Your task to perform on an android device: uninstall "Google Translate" Image 0: 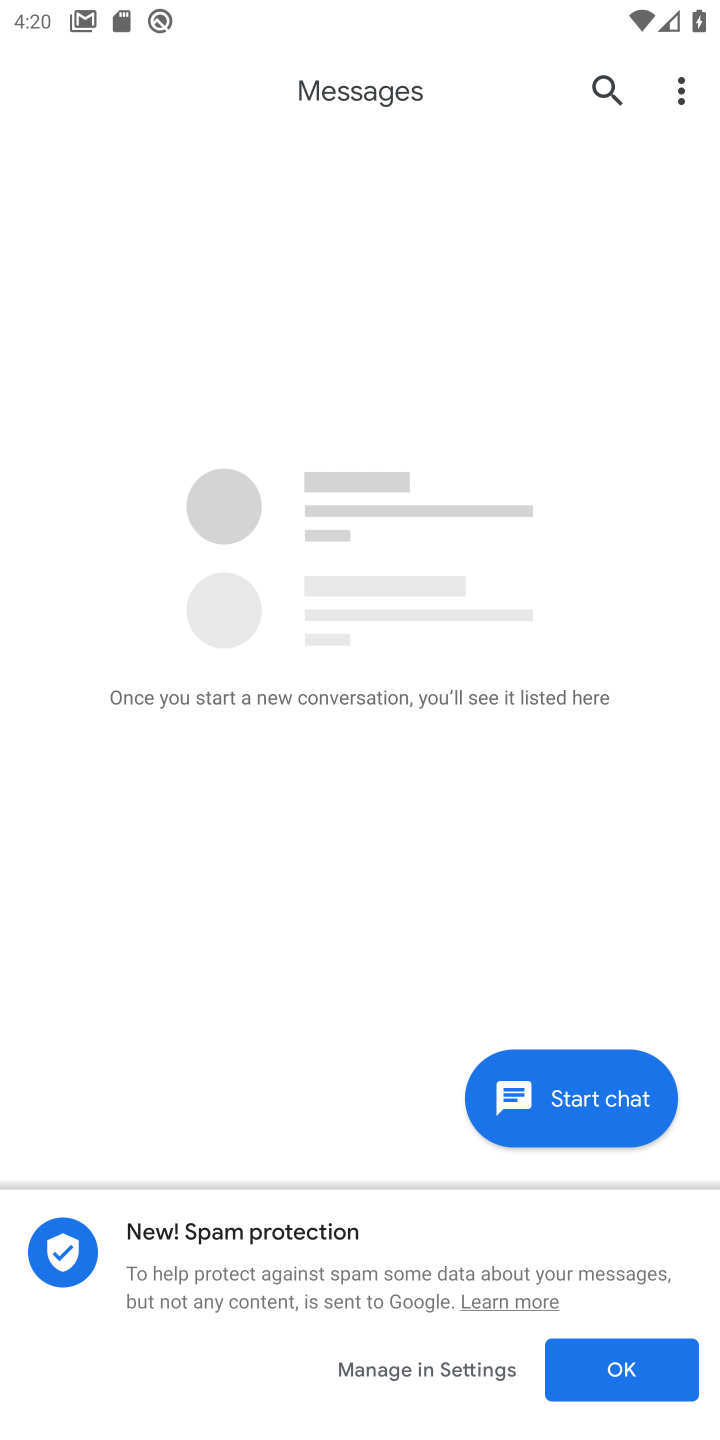
Step 0: press home button
Your task to perform on an android device: uninstall "Google Translate" Image 1: 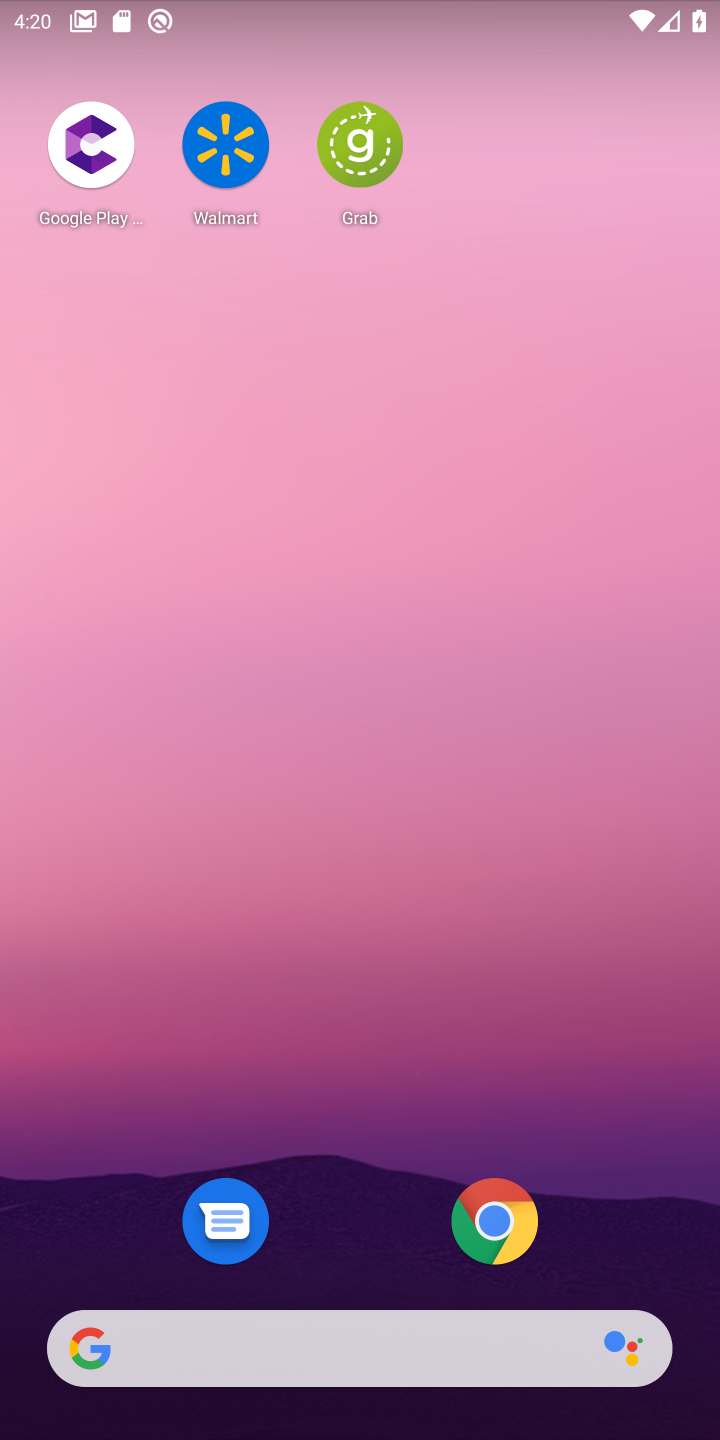
Step 1: drag from (399, 670) to (565, 23)
Your task to perform on an android device: uninstall "Google Translate" Image 2: 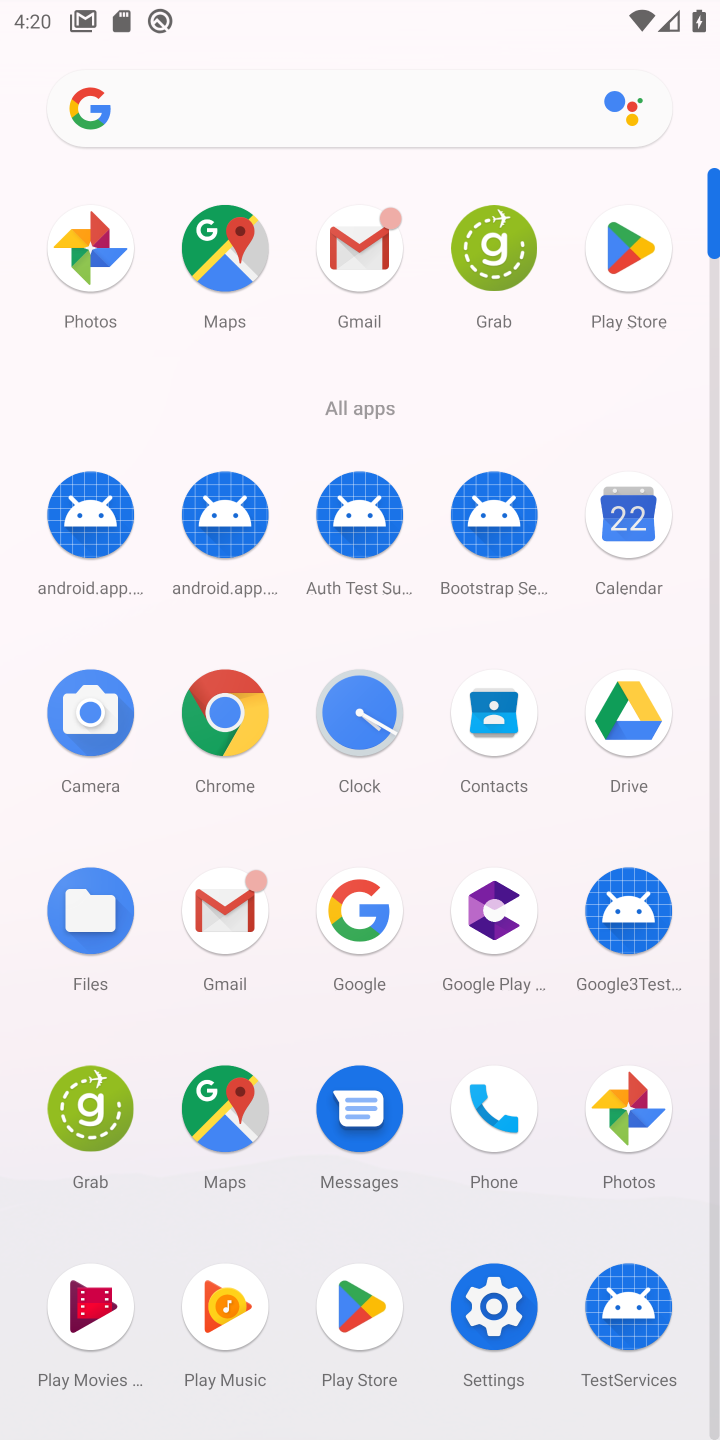
Step 2: click (617, 249)
Your task to perform on an android device: uninstall "Google Translate" Image 3: 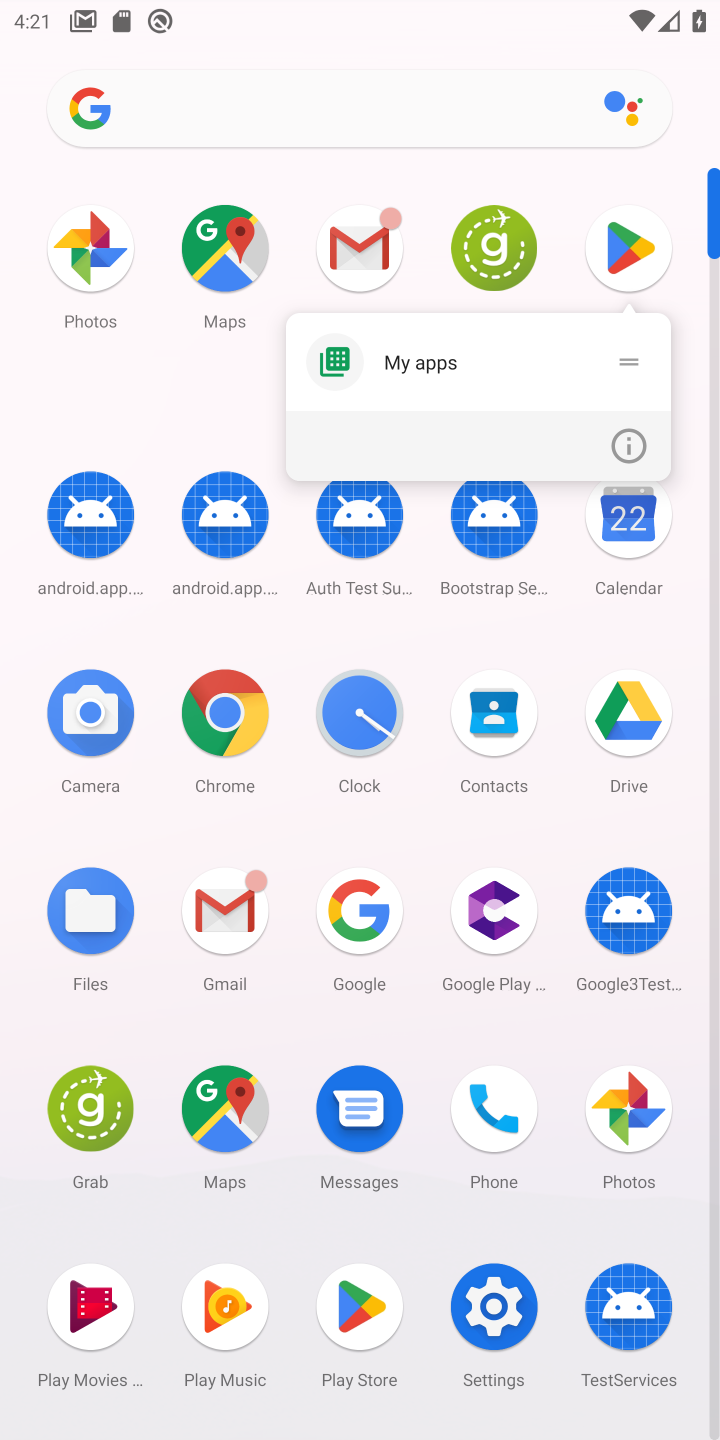
Step 3: click (617, 249)
Your task to perform on an android device: uninstall "Google Translate" Image 4: 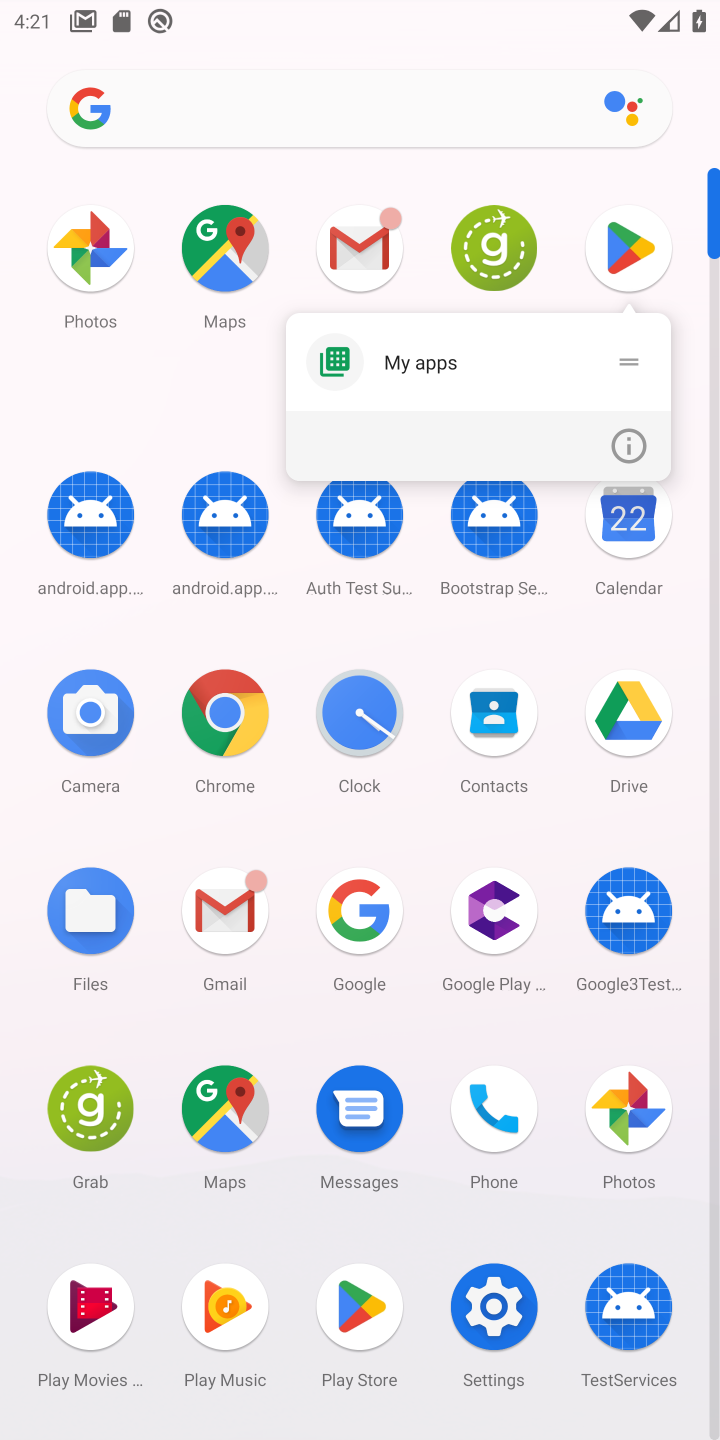
Step 4: click (617, 249)
Your task to perform on an android device: uninstall "Google Translate" Image 5: 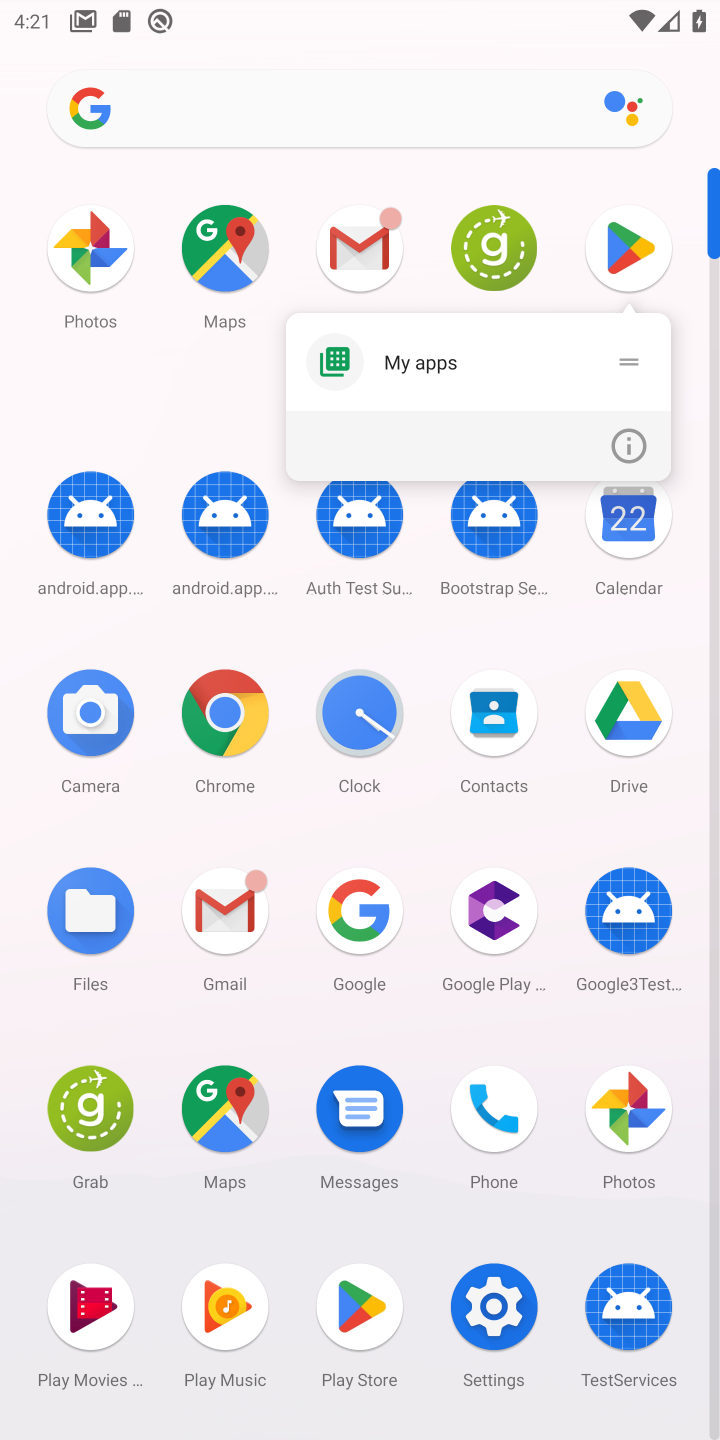
Step 5: click (632, 255)
Your task to perform on an android device: uninstall "Google Translate" Image 6: 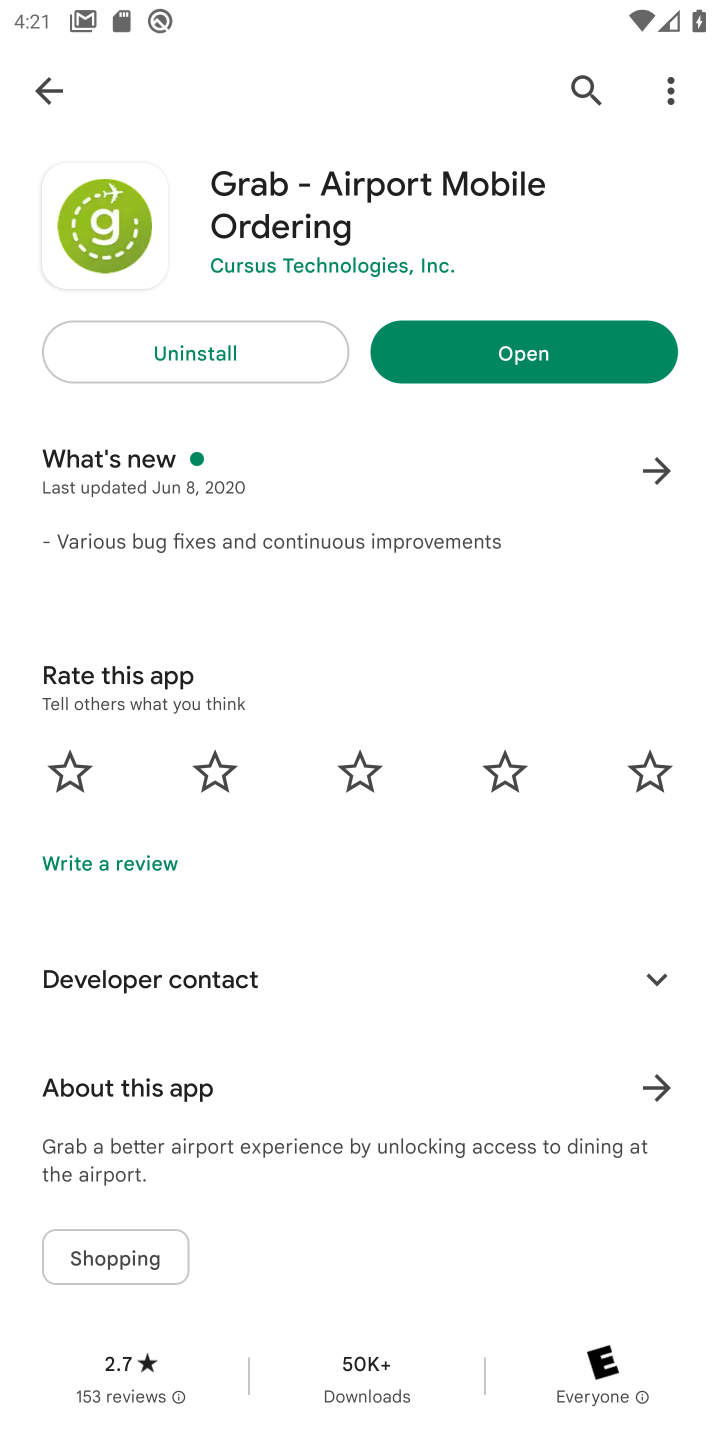
Step 6: press back button
Your task to perform on an android device: uninstall "Google Translate" Image 7: 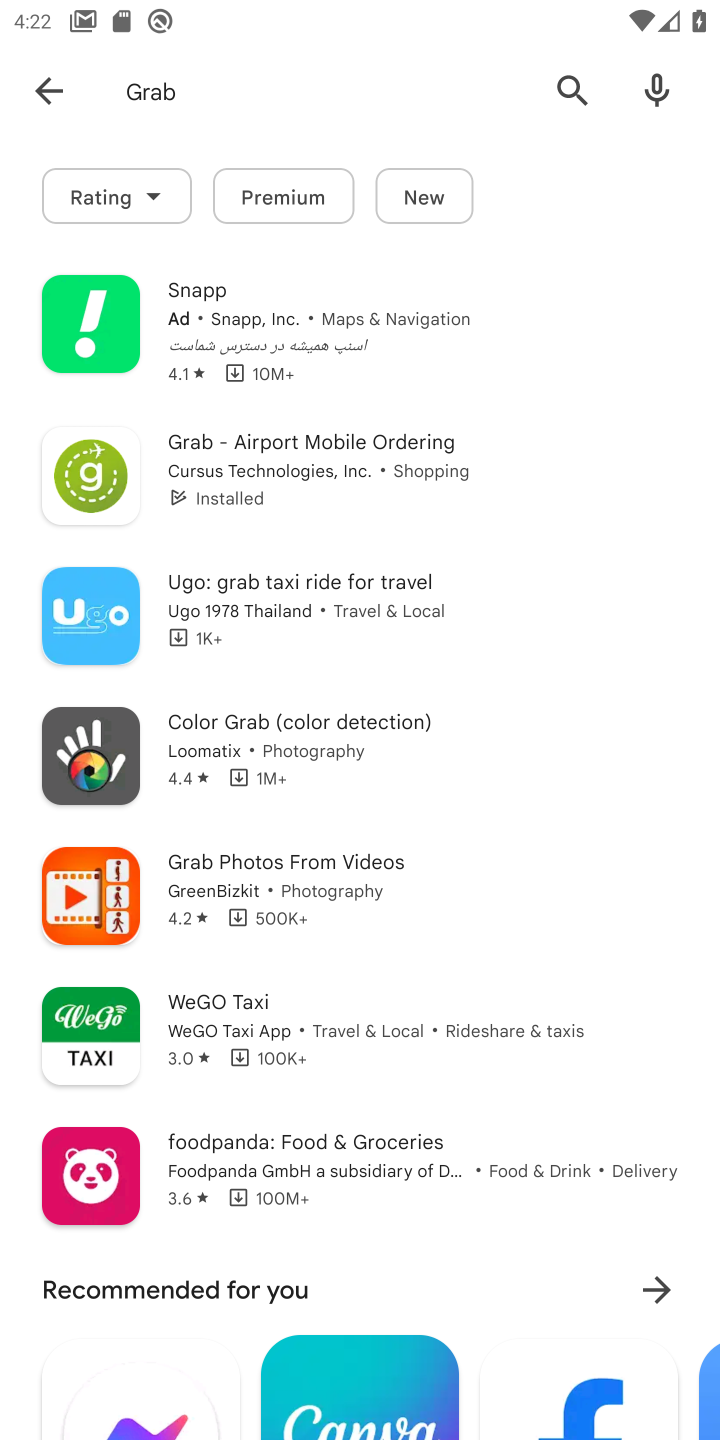
Step 7: press back button
Your task to perform on an android device: uninstall "Google Translate" Image 8: 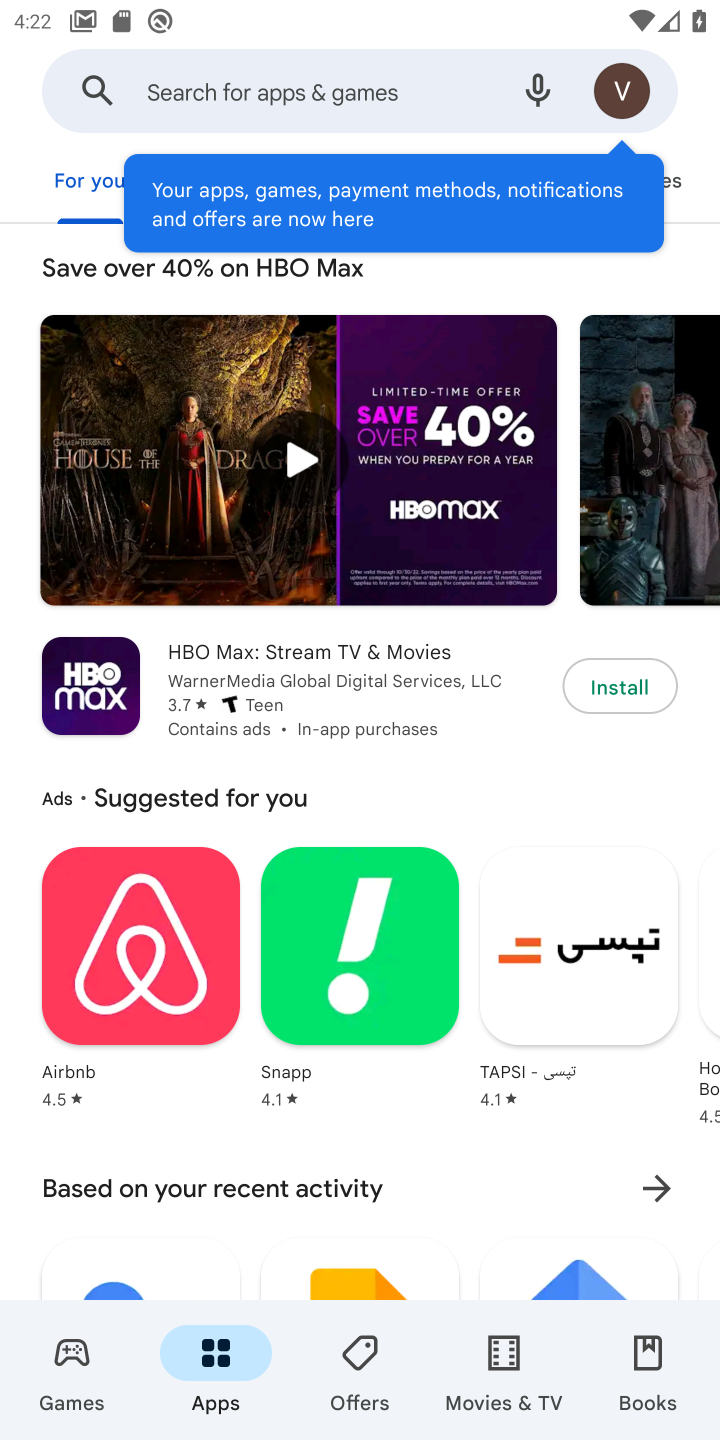
Step 8: click (186, 84)
Your task to perform on an android device: uninstall "Google Translate" Image 9: 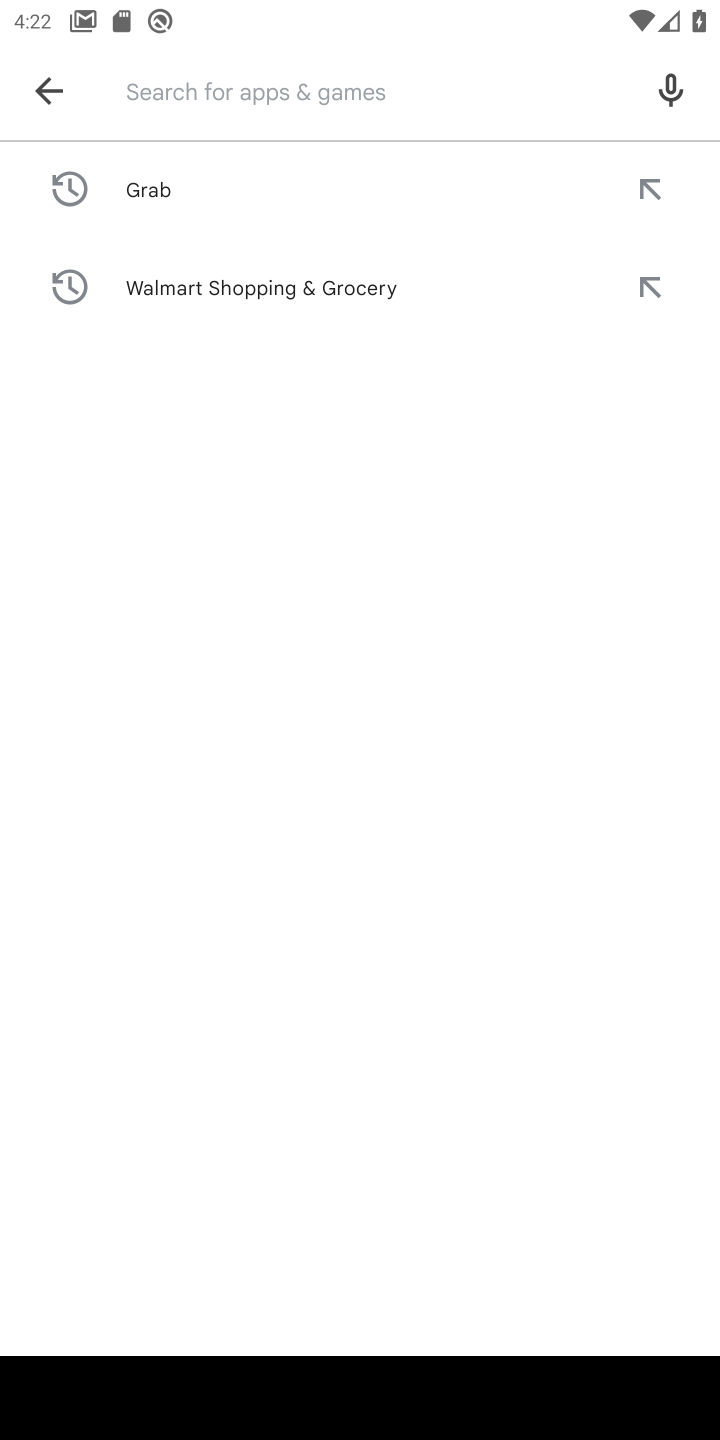
Step 9: type "Google Translate"
Your task to perform on an android device: uninstall "Google Translate" Image 10: 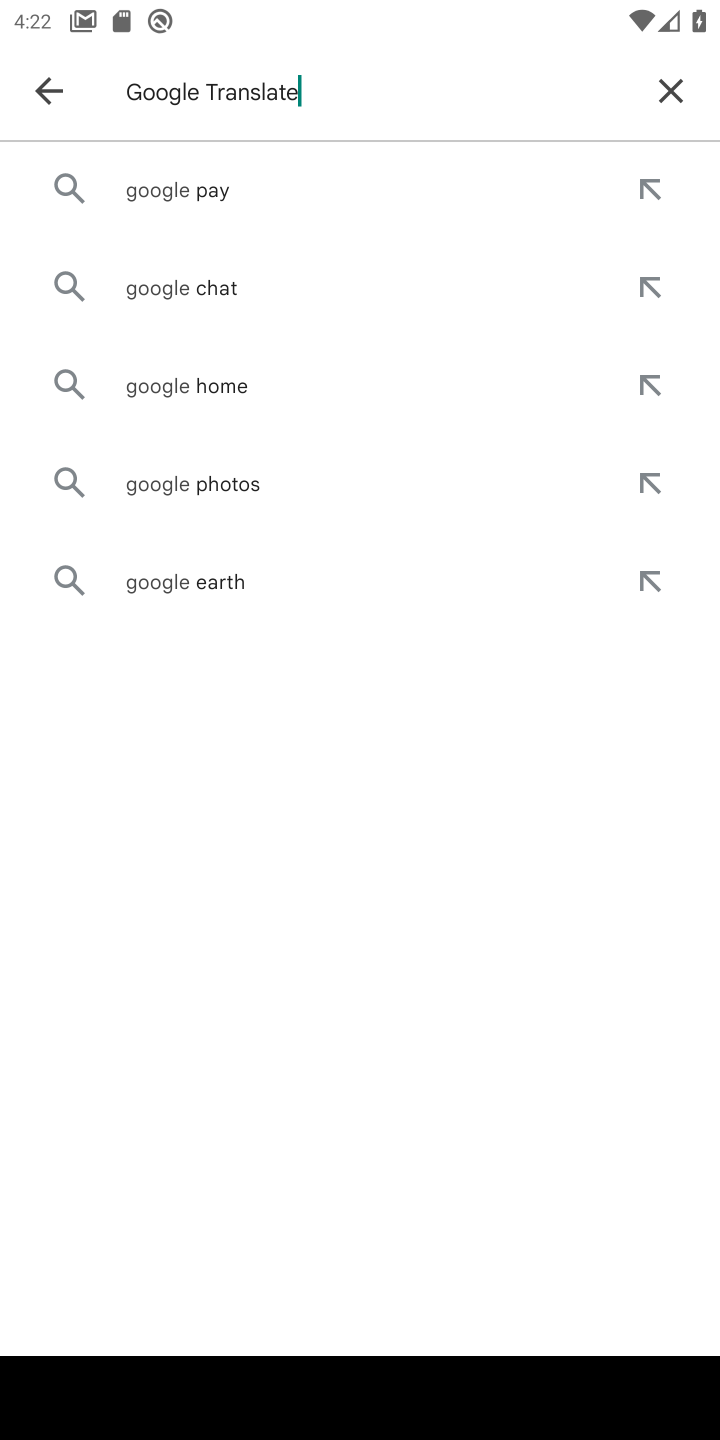
Step 10: press enter
Your task to perform on an android device: uninstall "Google Translate" Image 11: 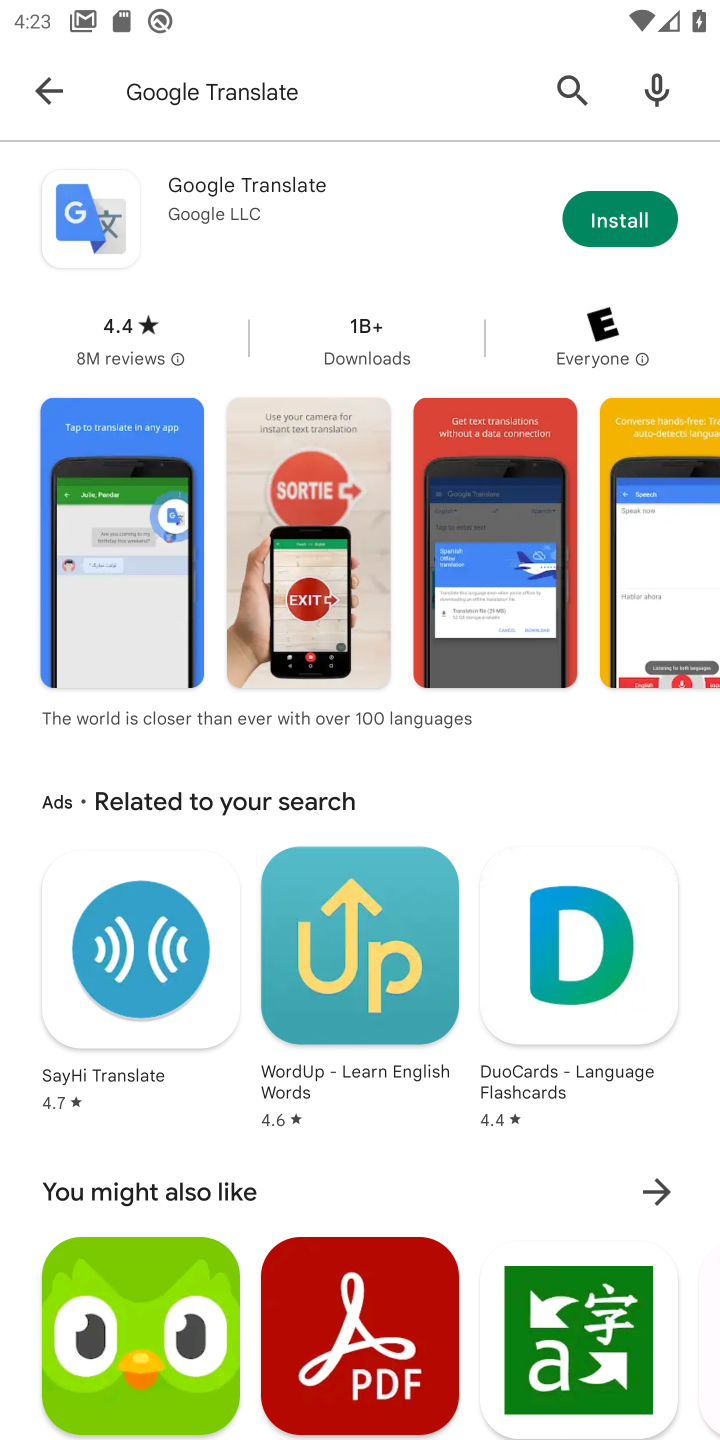
Step 11: task complete